Your task to perform on an android device: change timer sound Image 0: 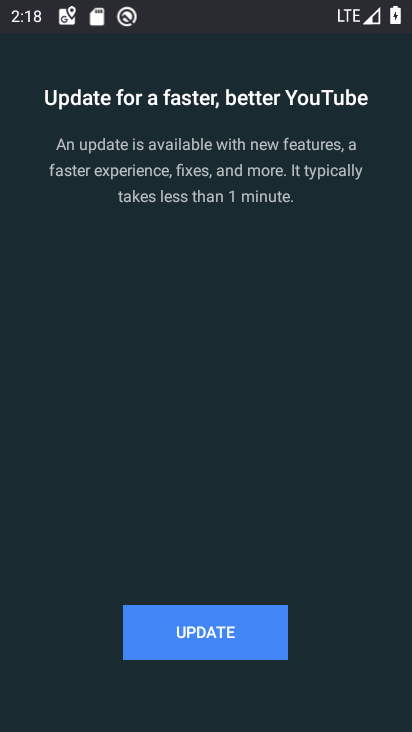
Step 0: press home button
Your task to perform on an android device: change timer sound Image 1: 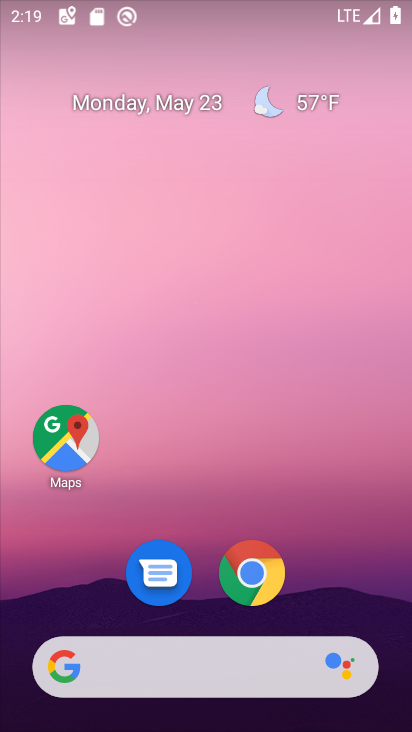
Step 1: drag from (323, 584) to (334, 57)
Your task to perform on an android device: change timer sound Image 2: 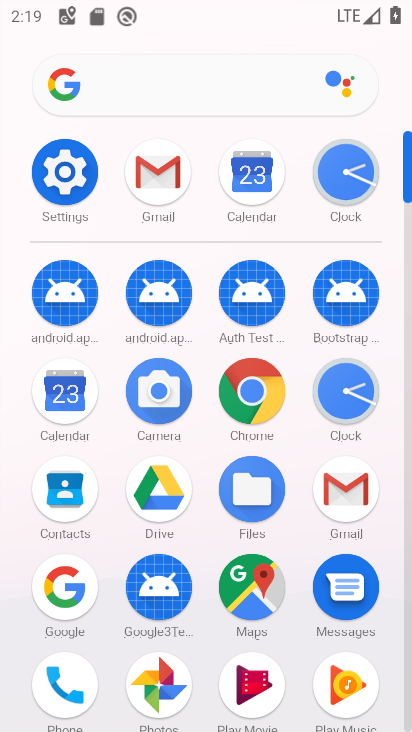
Step 2: click (87, 164)
Your task to perform on an android device: change timer sound Image 3: 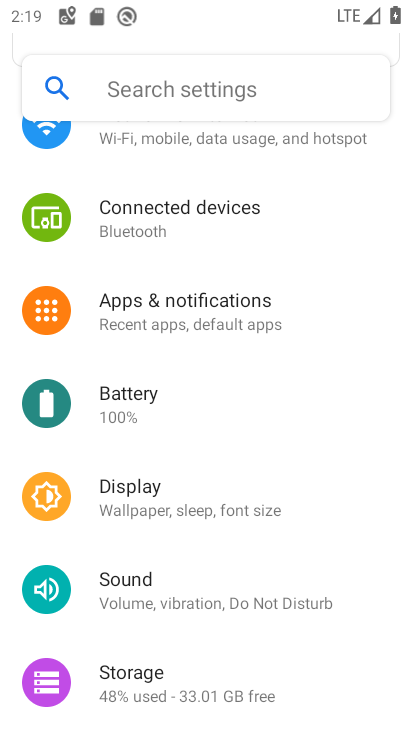
Step 3: press home button
Your task to perform on an android device: change timer sound Image 4: 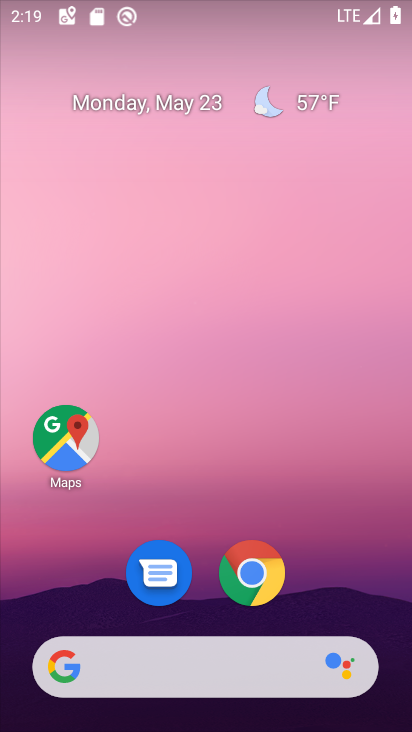
Step 4: drag from (321, 577) to (295, 187)
Your task to perform on an android device: change timer sound Image 5: 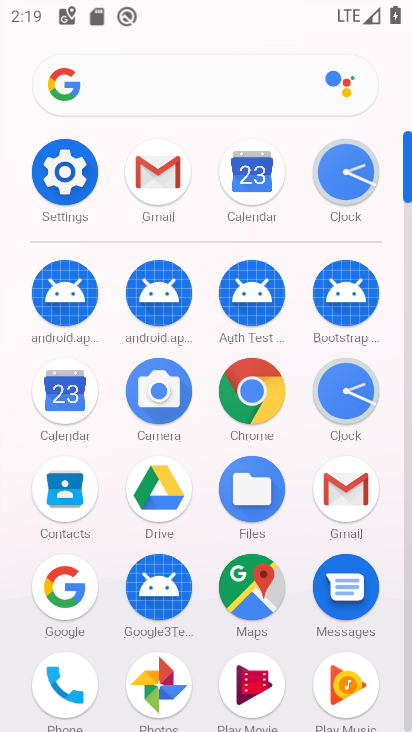
Step 5: click (347, 394)
Your task to perform on an android device: change timer sound Image 6: 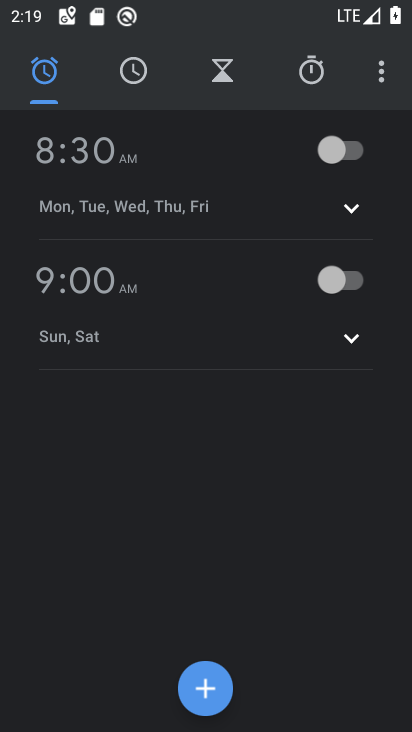
Step 6: click (384, 74)
Your task to perform on an android device: change timer sound Image 7: 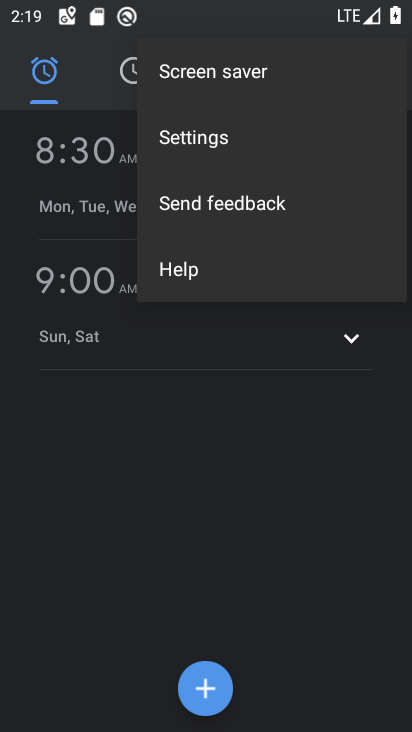
Step 7: click (217, 148)
Your task to perform on an android device: change timer sound Image 8: 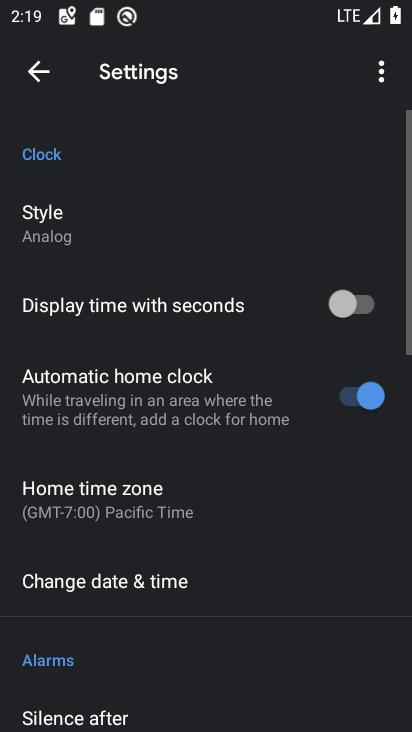
Step 8: drag from (199, 588) to (189, 130)
Your task to perform on an android device: change timer sound Image 9: 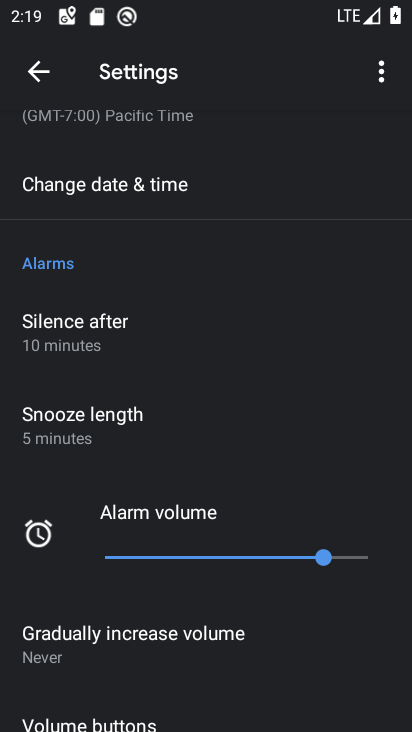
Step 9: drag from (210, 575) to (245, 160)
Your task to perform on an android device: change timer sound Image 10: 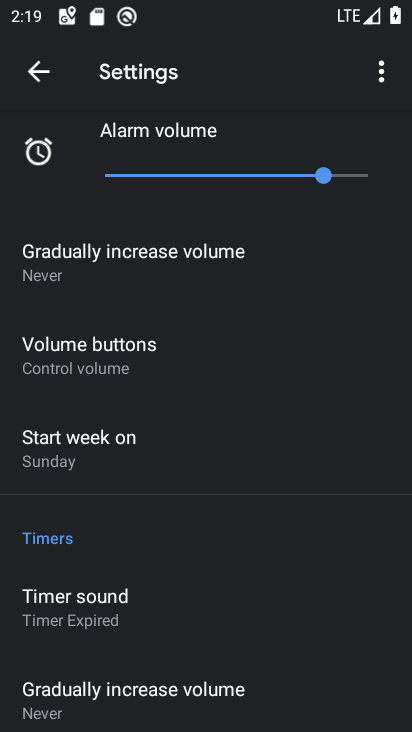
Step 10: click (112, 614)
Your task to perform on an android device: change timer sound Image 11: 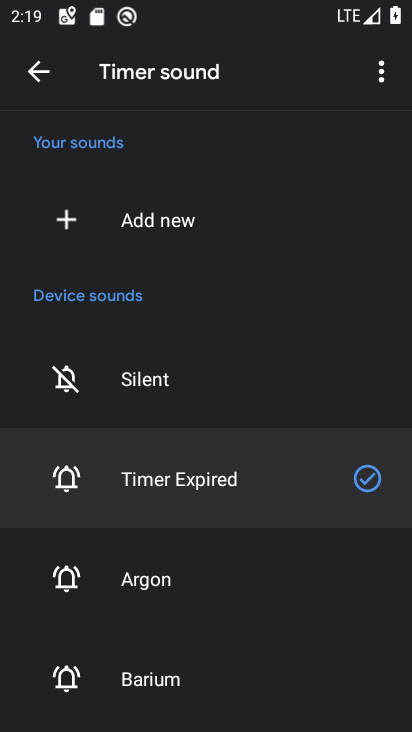
Step 11: click (120, 587)
Your task to perform on an android device: change timer sound Image 12: 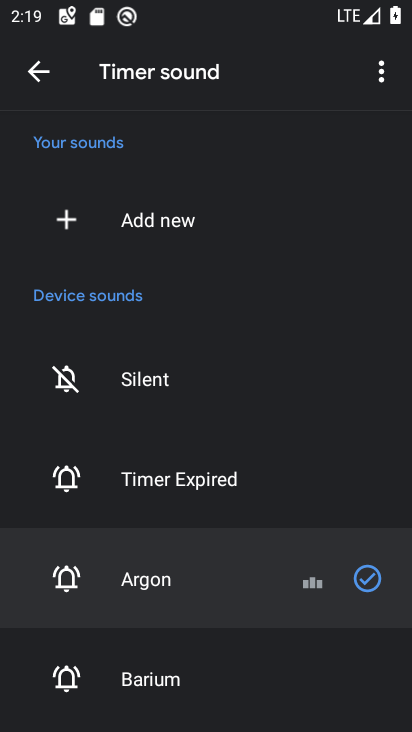
Step 12: task complete